Your task to perform on an android device: Go to settings Image 0: 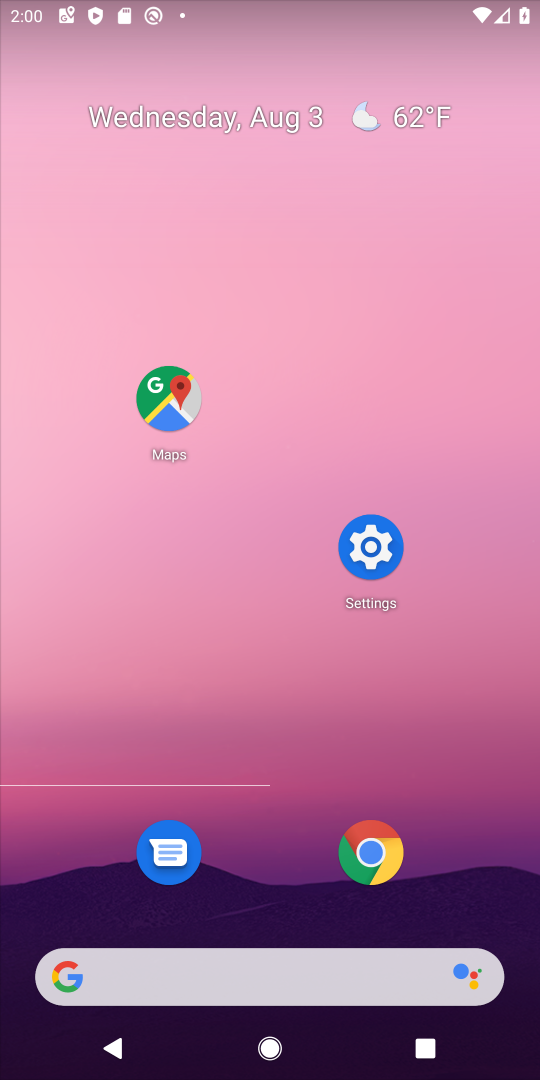
Step 0: press home button
Your task to perform on an android device: Go to settings Image 1: 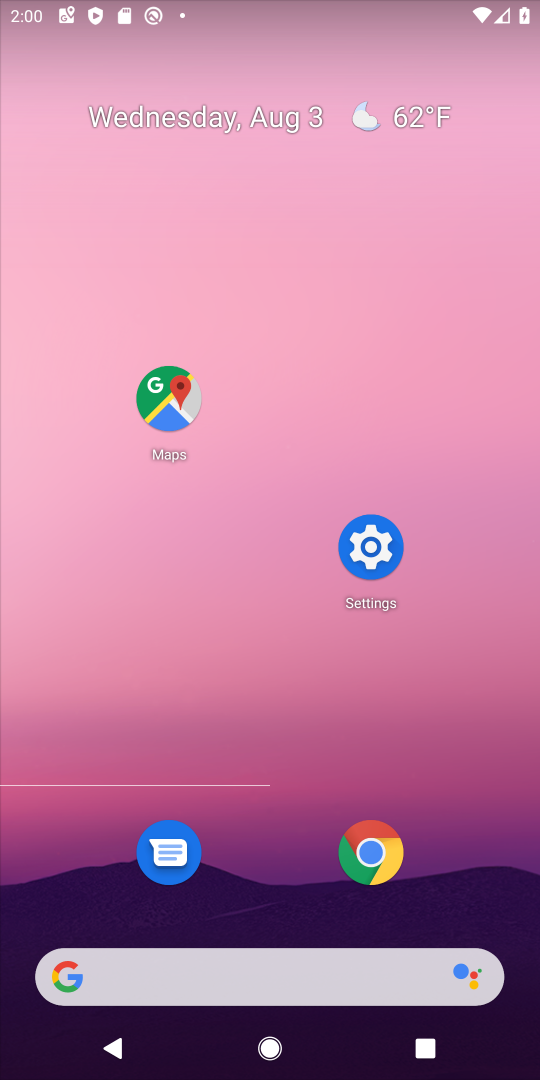
Step 1: click (378, 546)
Your task to perform on an android device: Go to settings Image 2: 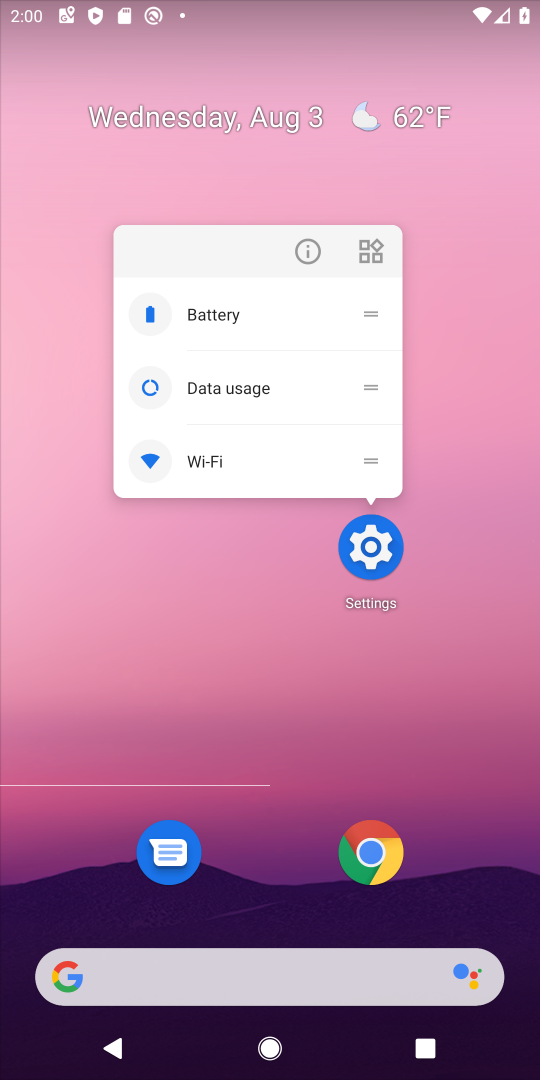
Step 2: click (378, 545)
Your task to perform on an android device: Go to settings Image 3: 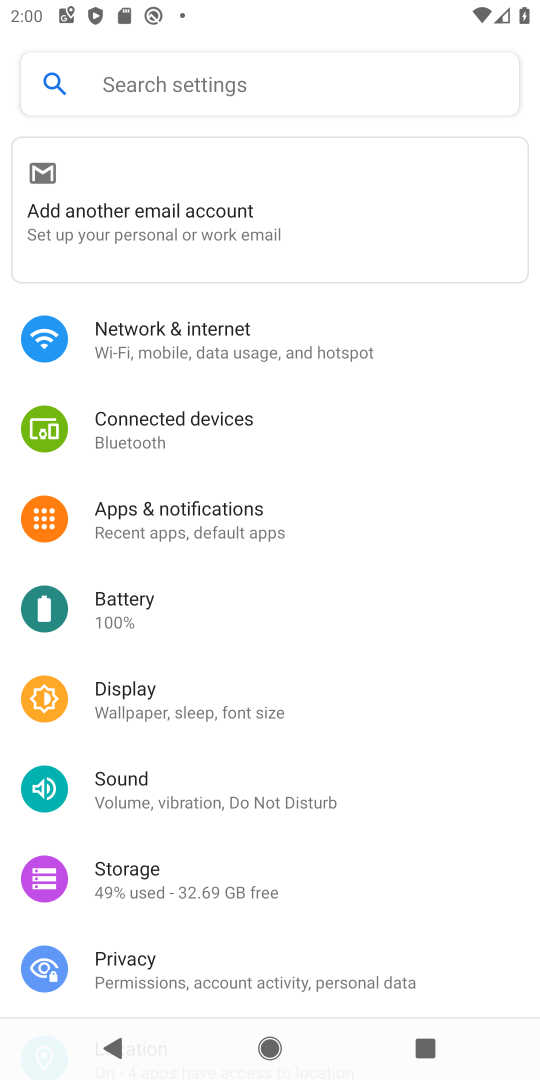
Step 3: task complete